Your task to perform on an android device: turn smart compose on in the gmail app Image 0: 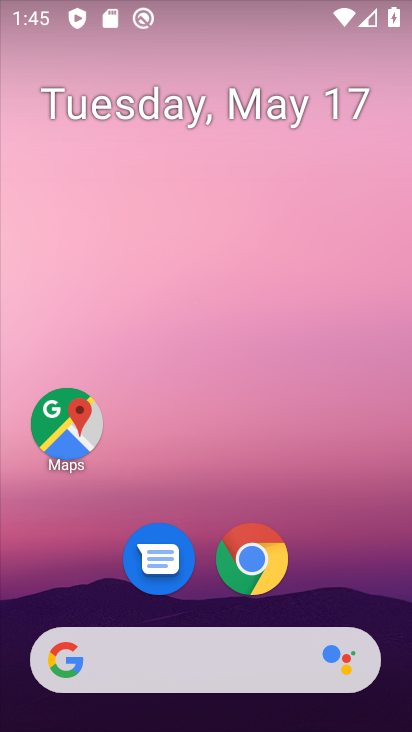
Step 0: drag from (199, 727) to (199, 38)
Your task to perform on an android device: turn smart compose on in the gmail app Image 1: 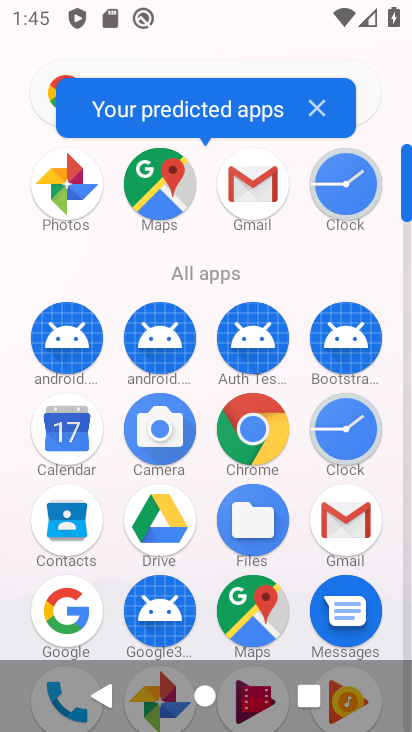
Step 1: click (259, 189)
Your task to perform on an android device: turn smart compose on in the gmail app Image 2: 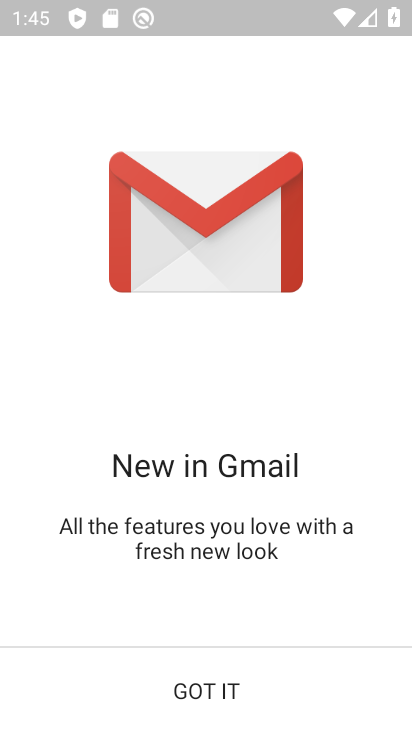
Step 2: click (200, 696)
Your task to perform on an android device: turn smart compose on in the gmail app Image 3: 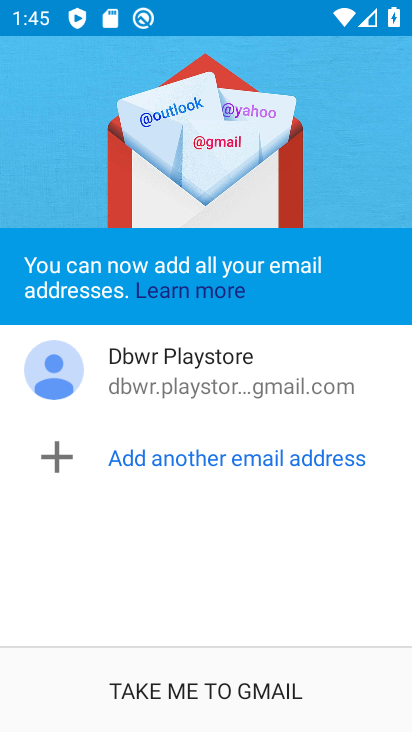
Step 3: click (199, 687)
Your task to perform on an android device: turn smart compose on in the gmail app Image 4: 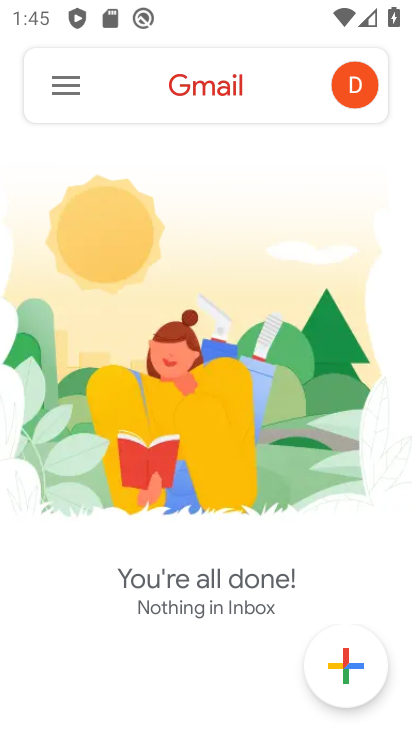
Step 4: click (62, 80)
Your task to perform on an android device: turn smart compose on in the gmail app Image 5: 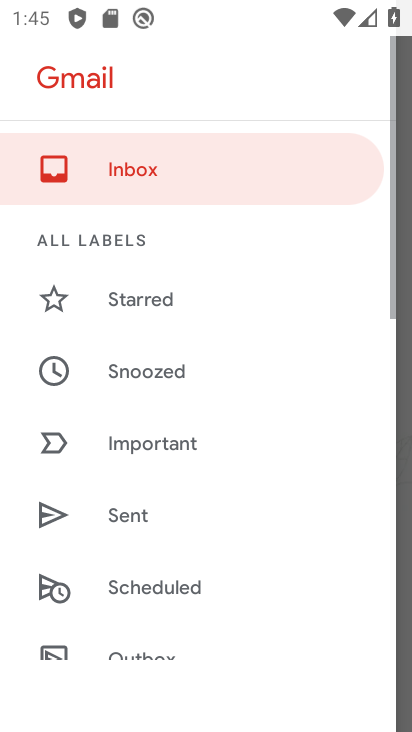
Step 5: drag from (163, 625) to (161, 180)
Your task to perform on an android device: turn smart compose on in the gmail app Image 6: 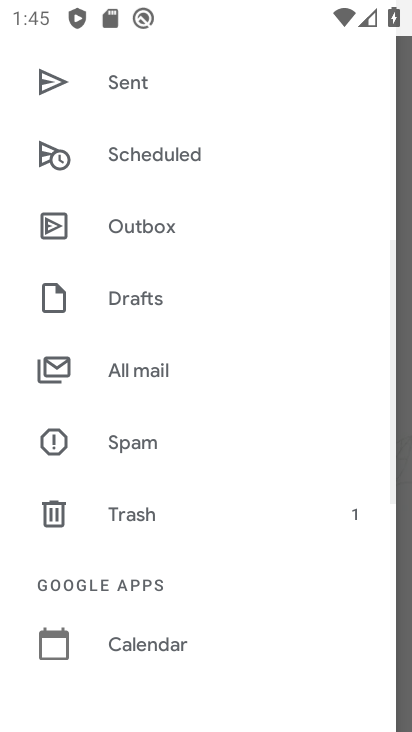
Step 6: drag from (171, 532) to (173, 228)
Your task to perform on an android device: turn smart compose on in the gmail app Image 7: 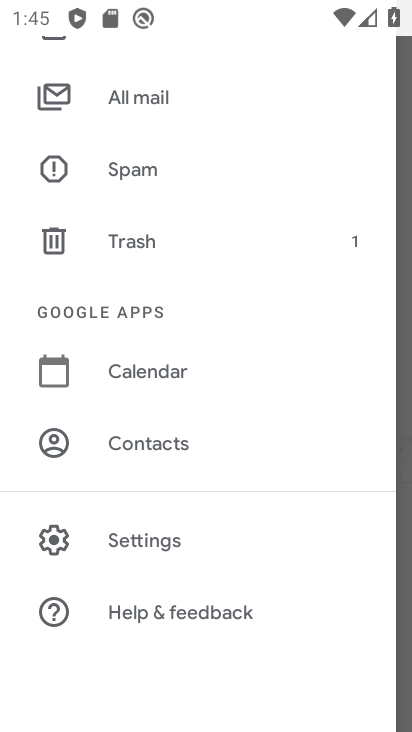
Step 7: click (130, 545)
Your task to perform on an android device: turn smart compose on in the gmail app Image 8: 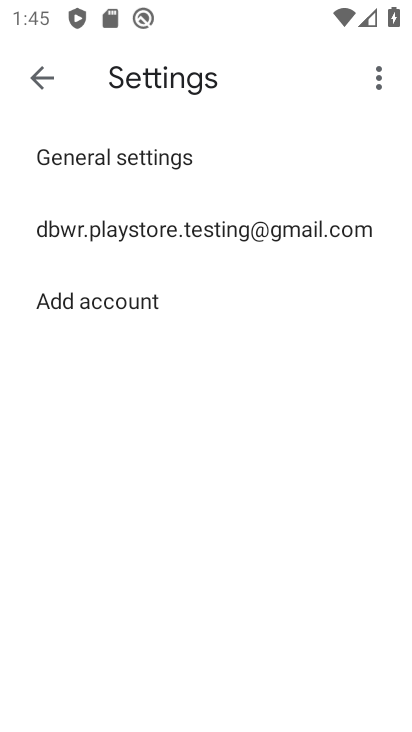
Step 8: click (174, 230)
Your task to perform on an android device: turn smart compose on in the gmail app Image 9: 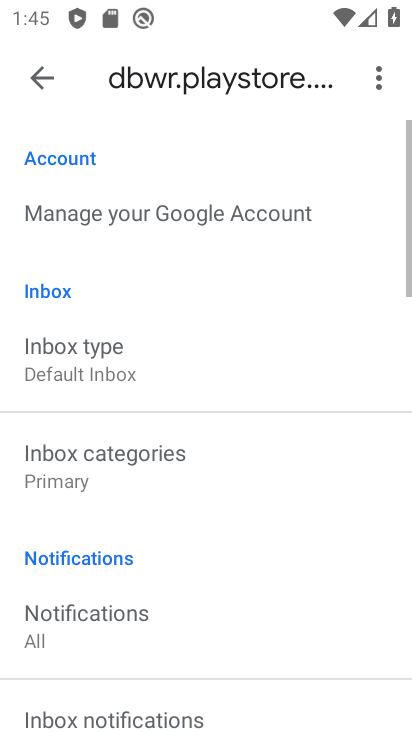
Step 9: task complete